Your task to perform on an android device: Go to wifi settings Image 0: 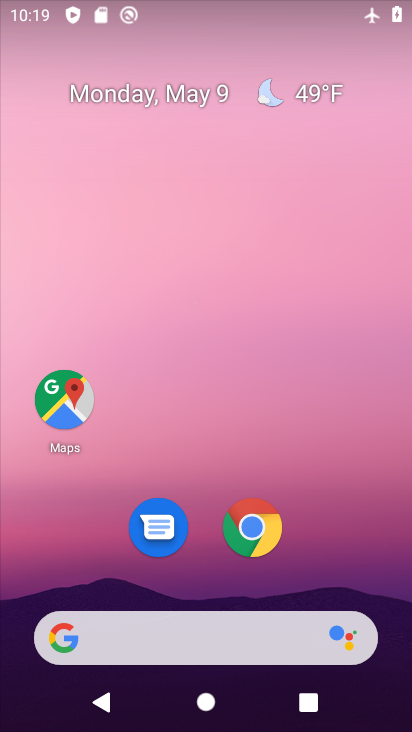
Step 0: drag from (321, 575) to (244, 92)
Your task to perform on an android device: Go to wifi settings Image 1: 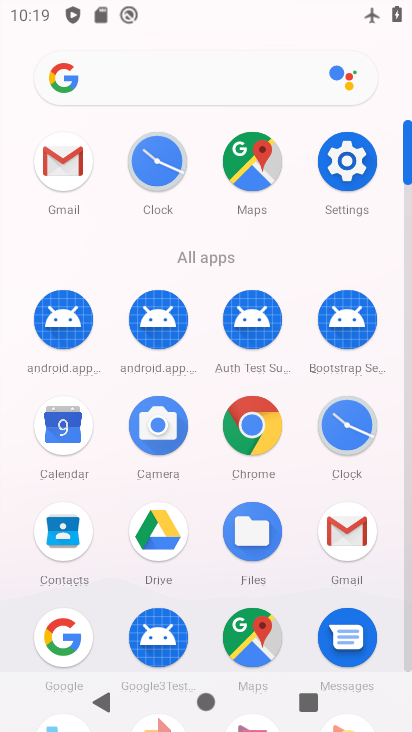
Step 1: click (346, 161)
Your task to perform on an android device: Go to wifi settings Image 2: 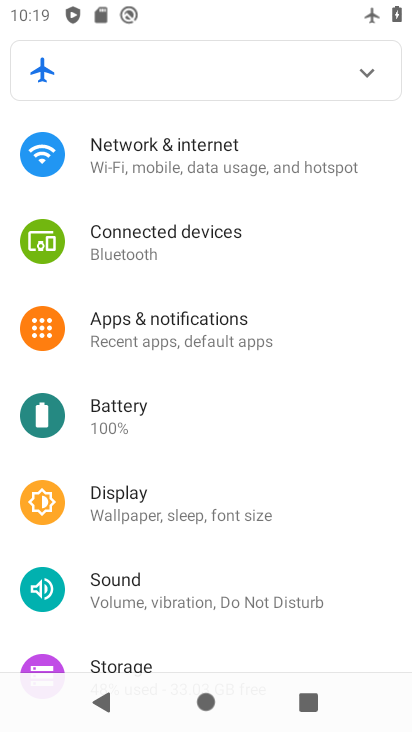
Step 2: click (150, 146)
Your task to perform on an android device: Go to wifi settings Image 3: 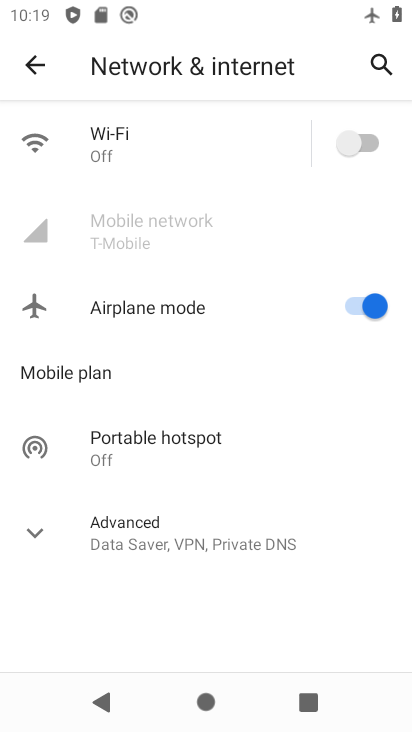
Step 3: click (116, 142)
Your task to perform on an android device: Go to wifi settings Image 4: 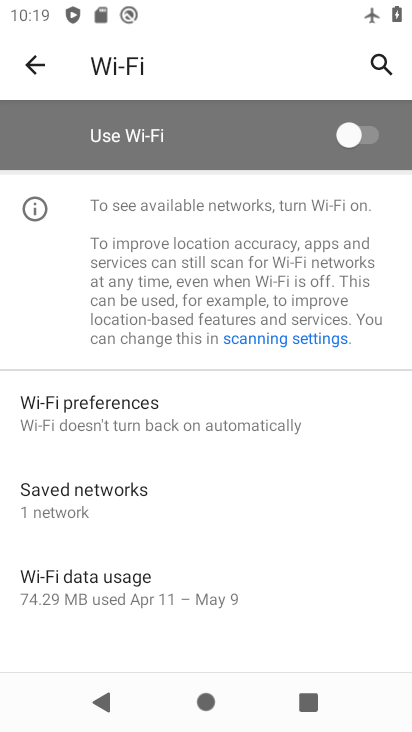
Step 4: task complete